Your task to perform on an android device: What's the weather going to be tomorrow? Image 0: 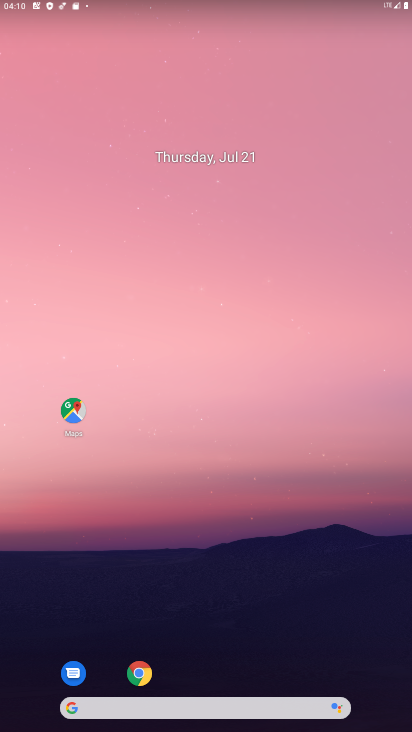
Step 0: drag from (262, 587) to (229, 140)
Your task to perform on an android device: What's the weather going to be tomorrow? Image 1: 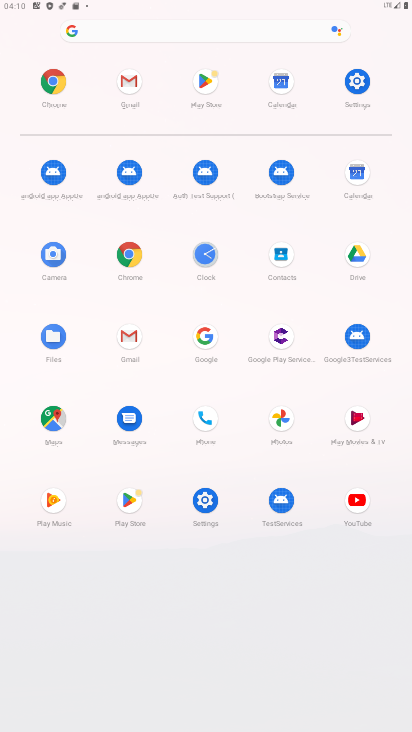
Step 1: click (133, 252)
Your task to perform on an android device: What's the weather going to be tomorrow? Image 2: 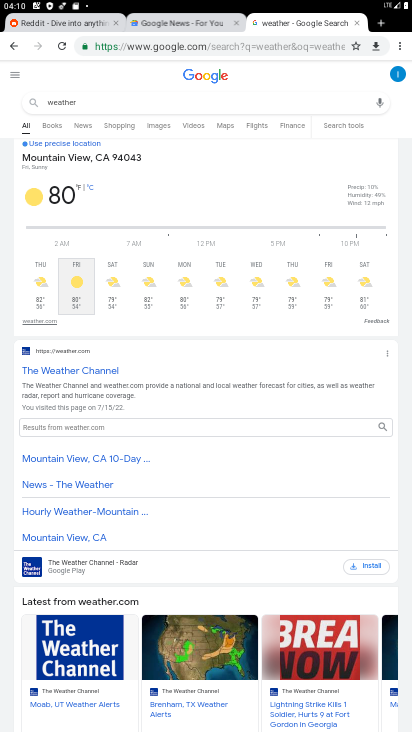
Step 2: task complete